Your task to perform on an android device: Open calendar and show me the second week of next month Image 0: 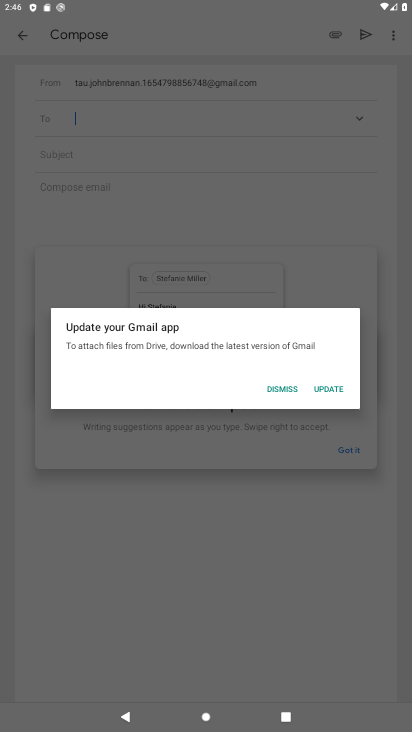
Step 0: press home button
Your task to perform on an android device: Open calendar and show me the second week of next month Image 1: 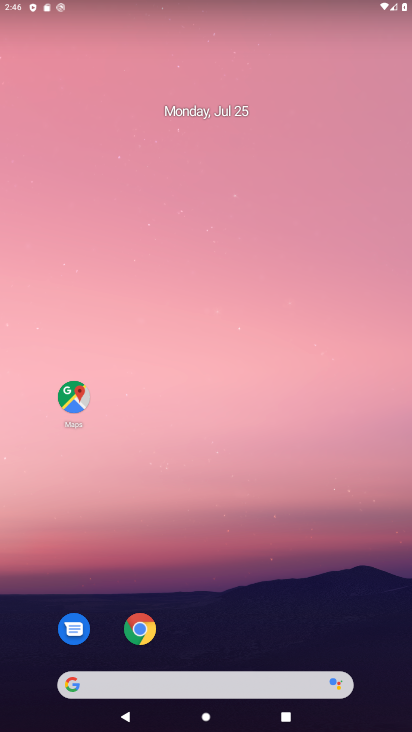
Step 1: drag from (248, 658) to (233, 51)
Your task to perform on an android device: Open calendar and show me the second week of next month Image 2: 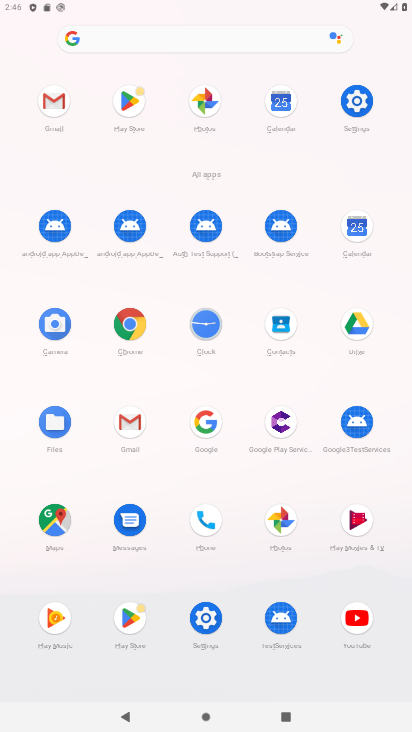
Step 2: click (360, 227)
Your task to perform on an android device: Open calendar and show me the second week of next month Image 3: 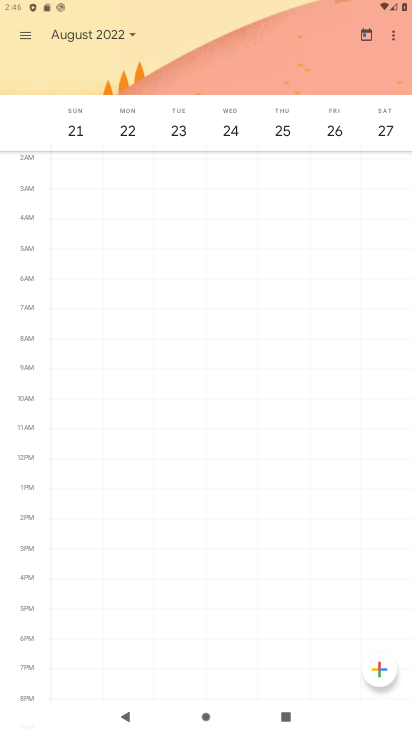
Step 3: click (360, 36)
Your task to perform on an android device: Open calendar and show me the second week of next month Image 4: 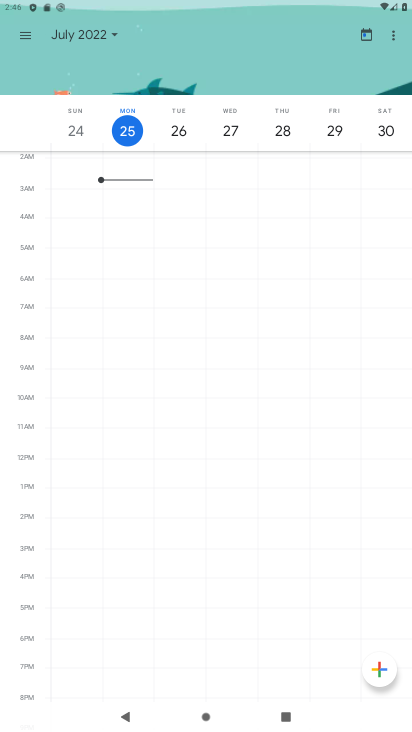
Step 4: click (114, 34)
Your task to perform on an android device: Open calendar and show me the second week of next month Image 5: 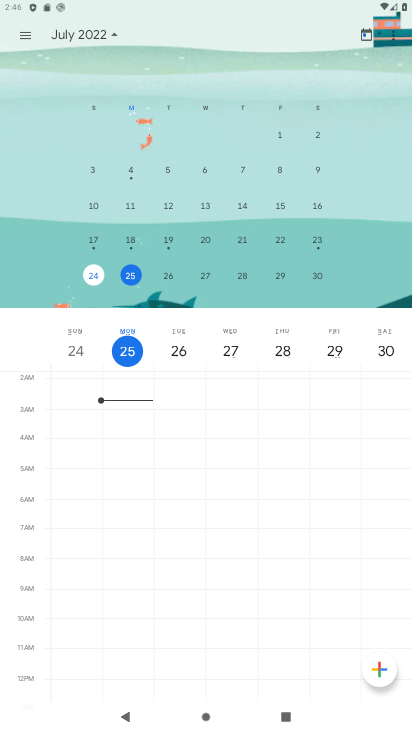
Step 5: drag from (358, 157) to (5, 354)
Your task to perform on an android device: Open calendar and show me the second week of next month Image 6: 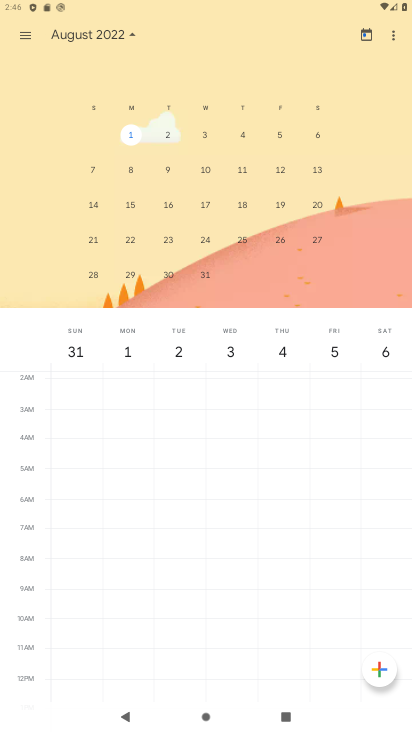
Step 6: click (26, 37)
Your task to perform on an android device: Open calendar and show me the second week of next month Image 7: 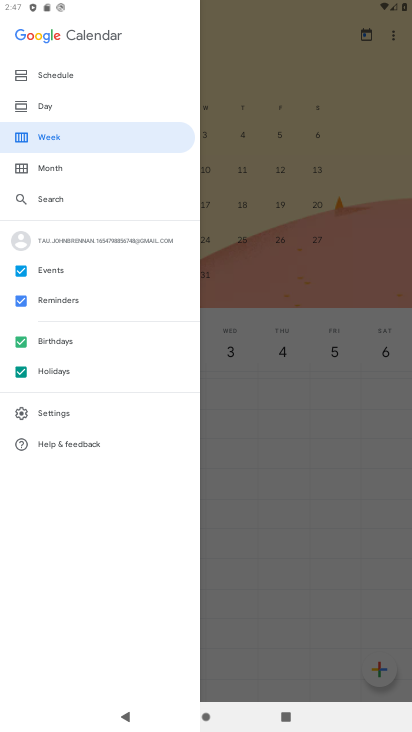
Step 7: click (26, 139)
Your task to perform on an android device: Open calendar and show me the second week of next month Image 8: 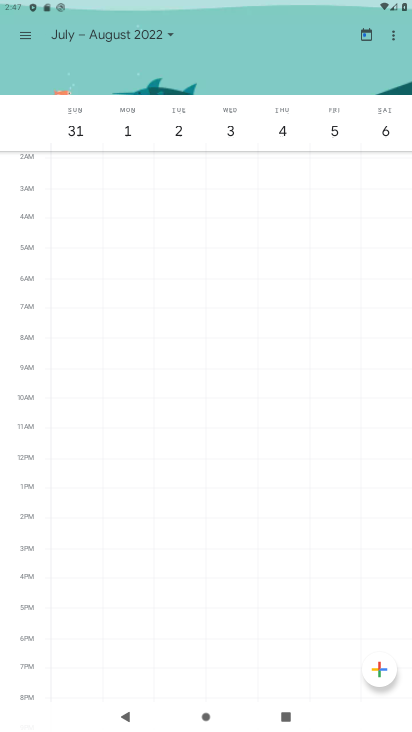
Step 8: task complete